Your task to perform on an android device: open wifi settings Image 0: 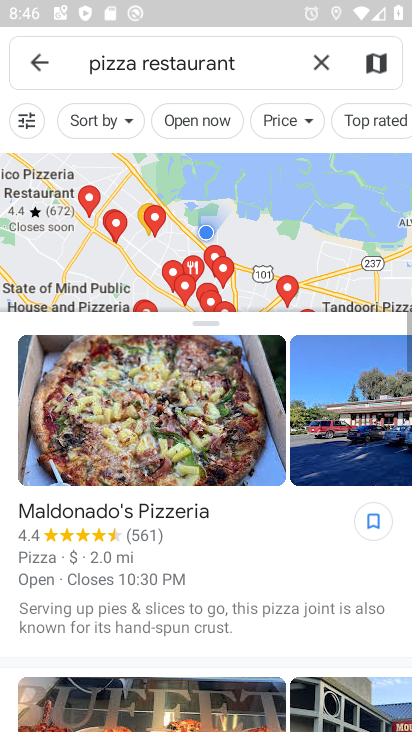
Step 0: press home button
Your task to perform on an android device: open wifi settings Image 1: 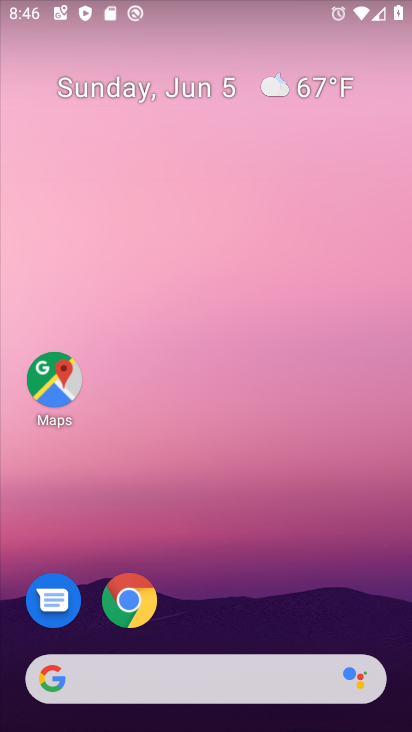
Step 1: drag from (398, 647) to (336, 369)
Your task to perform on an android device: open wifi settings Image 2: 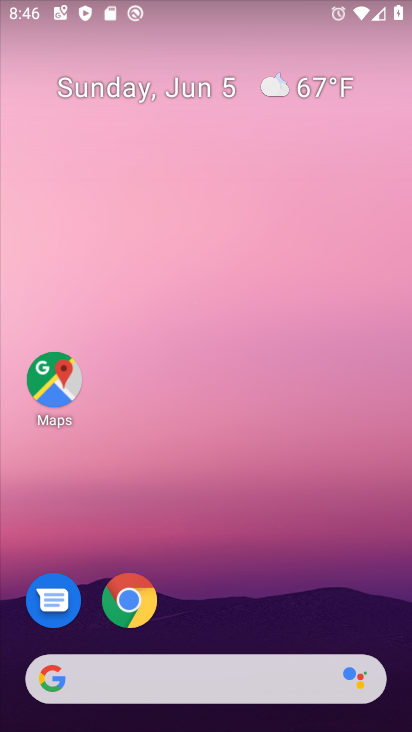
Step 2: drag from (371, 616) to (328, 407)
Your task to perform on an android device: open wifi settings Image 3: 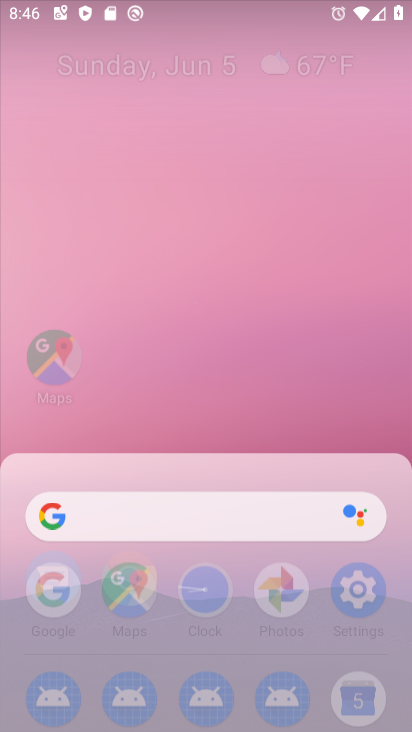
Step 3: drag from (296, 163) to (227, 26)
Your task to perform on an android device: open wifi settings Image 4: 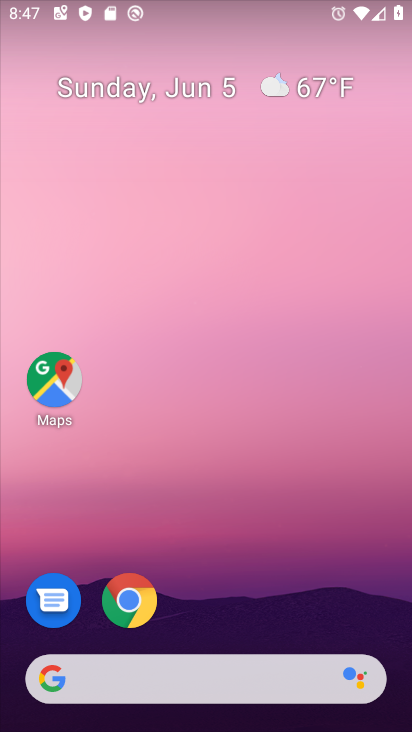
Step 4: drag from (398, 673) to (311, 39)
Your task to perform on an android device: open wifi settings Image 5: 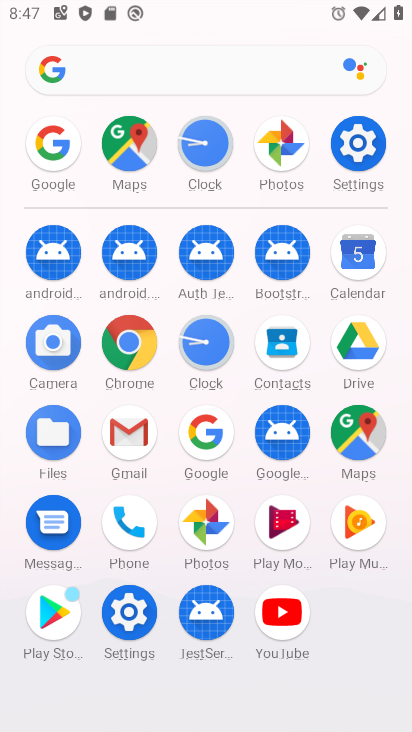
Step 5: click (150, 617)
Your task to perform on an android device: open wifi settings Image 6: 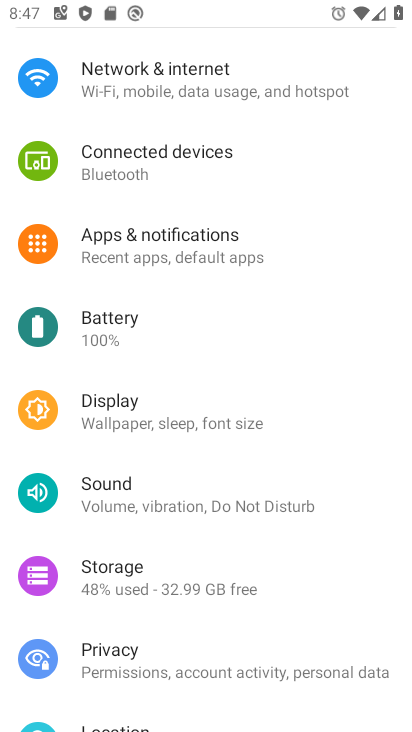
Step 6: click (165, 99)
Your task to perform on an android device: open wifi settings Image 7: 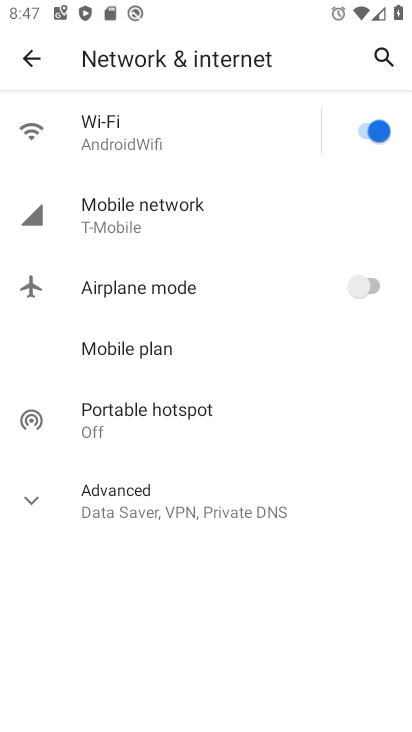
Step 7: click (96, 137)
Your task to perform on an android device: open wifi settings Image 8: 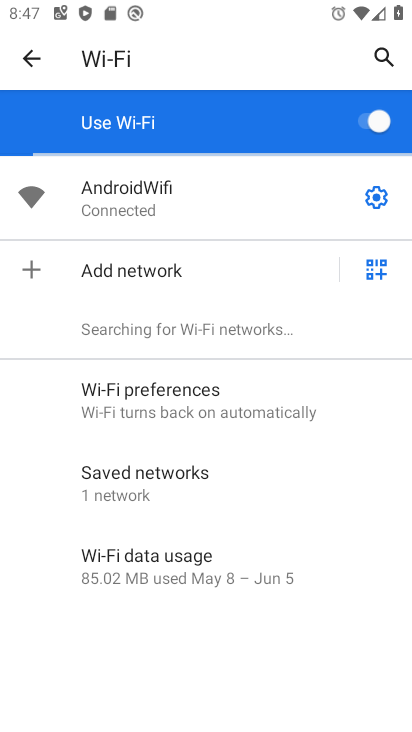
Step 8: task complete